Your task to perform on an android device: turn off notifications settings in the gmail app Image 0: 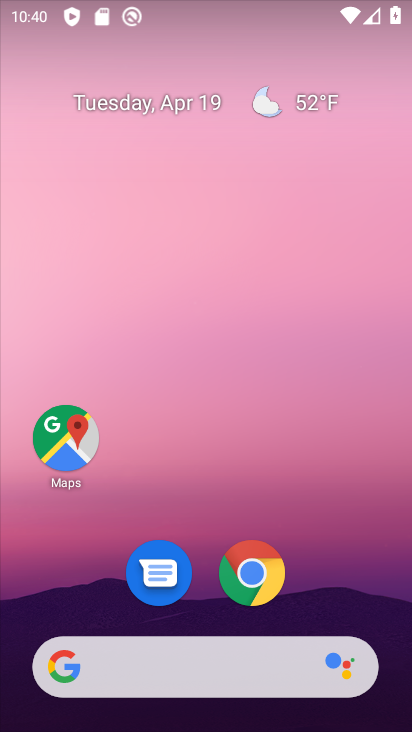
Step 0: drag from (203, 725) to (204, 103)
Your task to perform on an android device: turn off notifications settings in the gmail app Image 1: 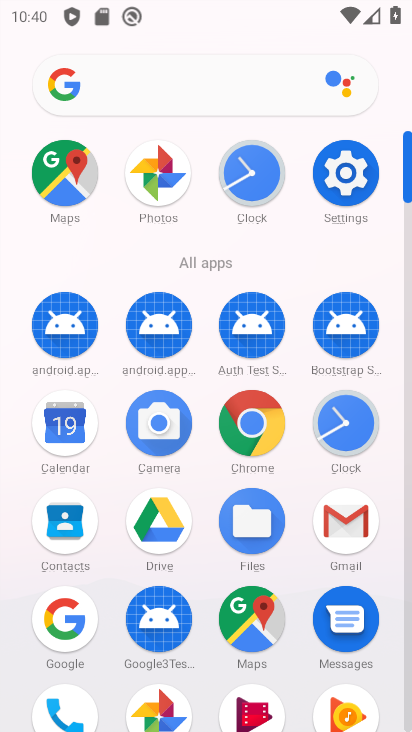
Step 1: click (344, 514)
Your task to perform on an android device: turn off notifications settings in the gmail app Image 2: 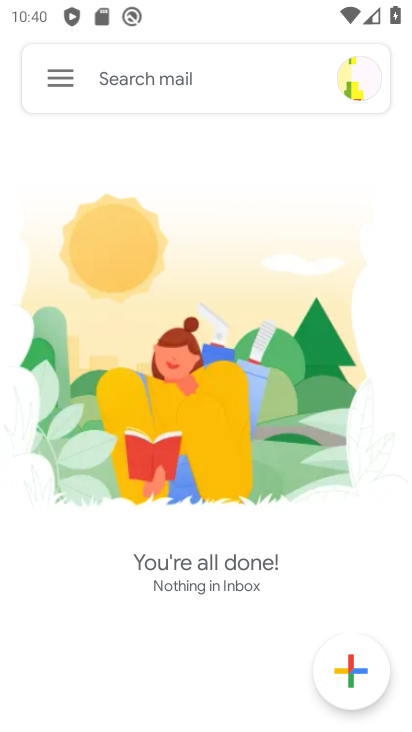
Step 2: click (57, 68)
Your task to perform on an android device: turn off notifications settings in the gmail app Image 3: 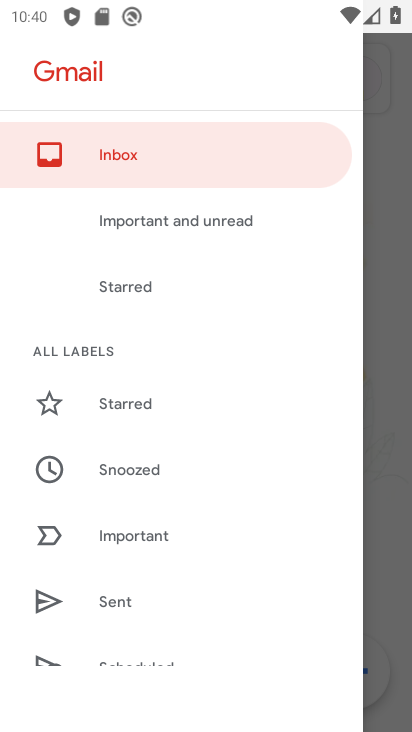
Step 3: drag from (163, 637) to (154, 162)
Your task to perform on an android device: turn off notifications settings in the gmail app Image 4: 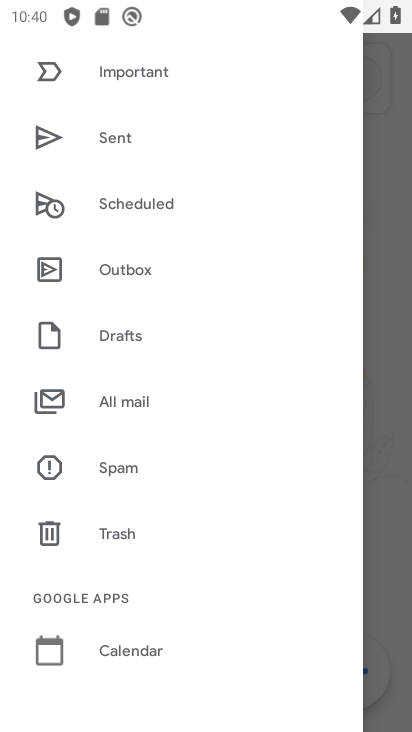
Step 4: drag from (183, 641) to (186, 187)
Your task to perform on an android device: turn off notifications settings in the gmail app Image 5: 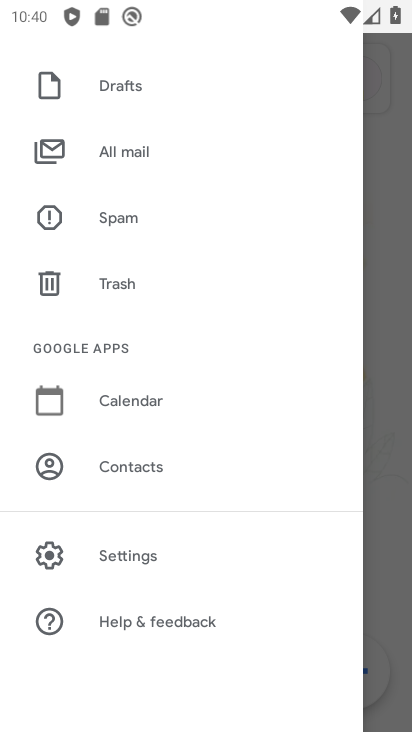
Step 5: click (134, 553)
Your task to perform on an android device: turn off notifications settings in the gmail app Image 6: 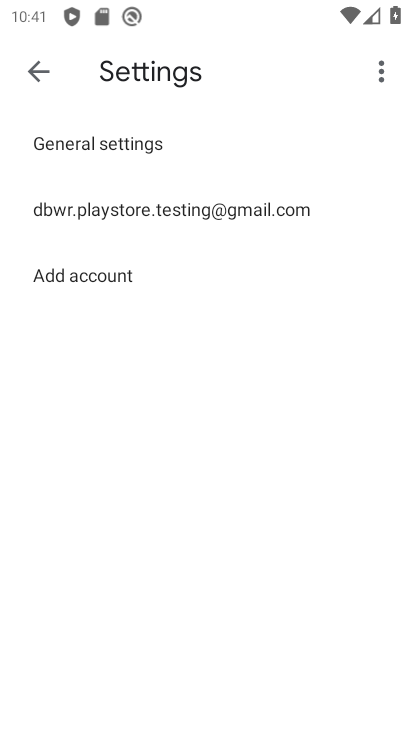
Step 6: click (182, 208)
Your task to perform on an android device: turn off notifications settings in the gmail app Image 7: 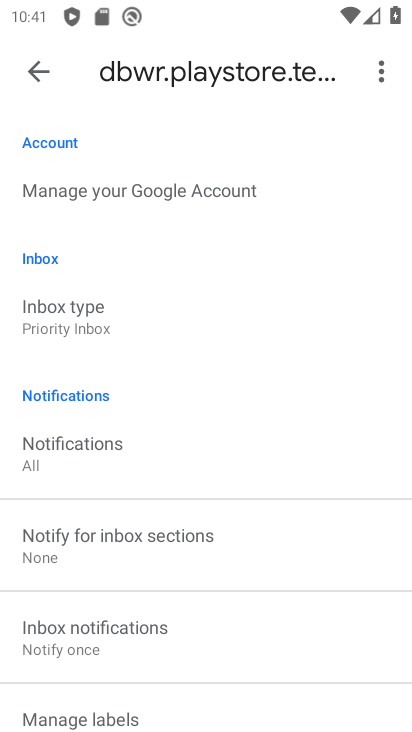
Step 7: click (74, 453)
Your task to perform on an android device: turn off notifications settings in the gmail app Image 8: 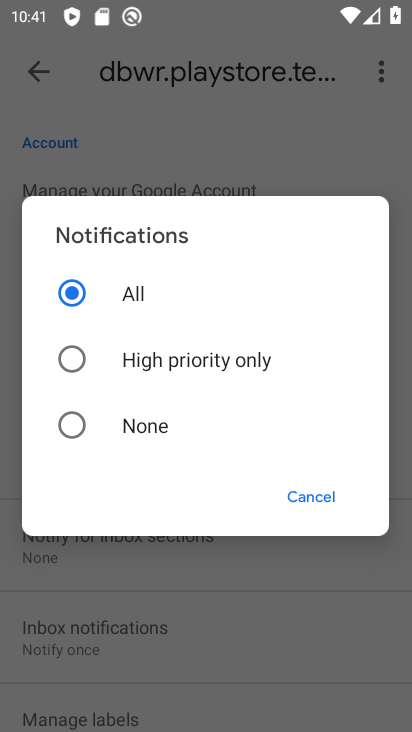
Step 8: click (73, 419)
Your task to perform on an android device: turn off notifications settings in the gmail app Image 9: 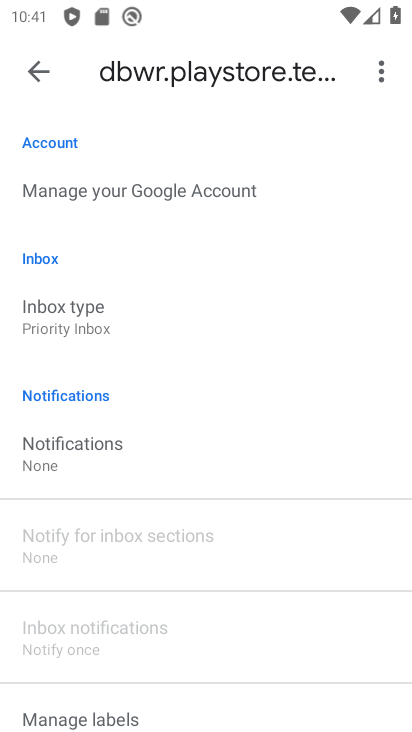
Step 9: task complete